Your task to perform on an android device: Open the map Image 0: 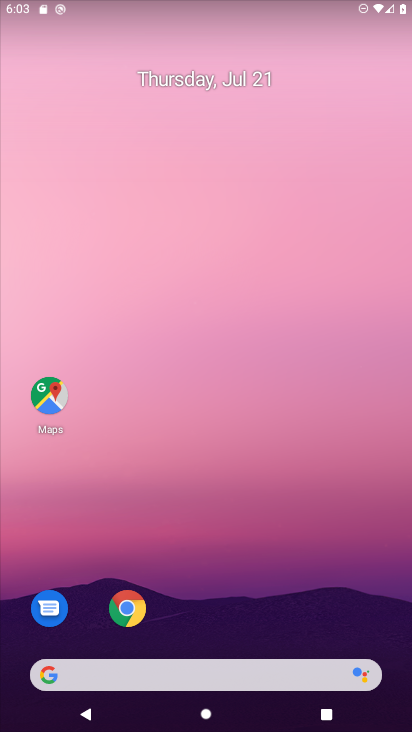
Step 0: click (47, 393)
Your task to perform on an android device: Open the map Image 1: 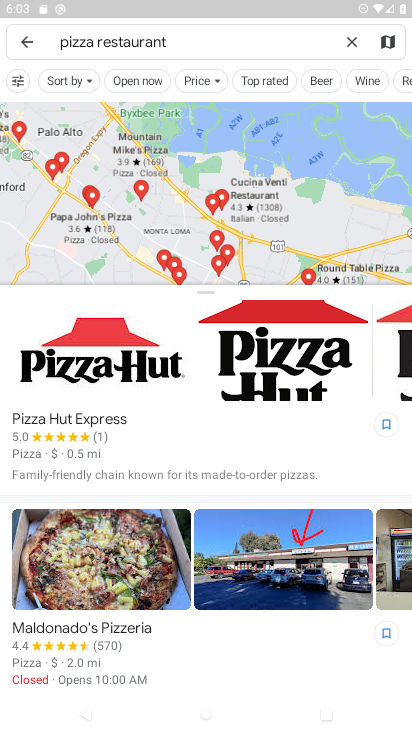
Step 1: click (353, 40)
Your task to perform on an android device: Open the map Image 2: 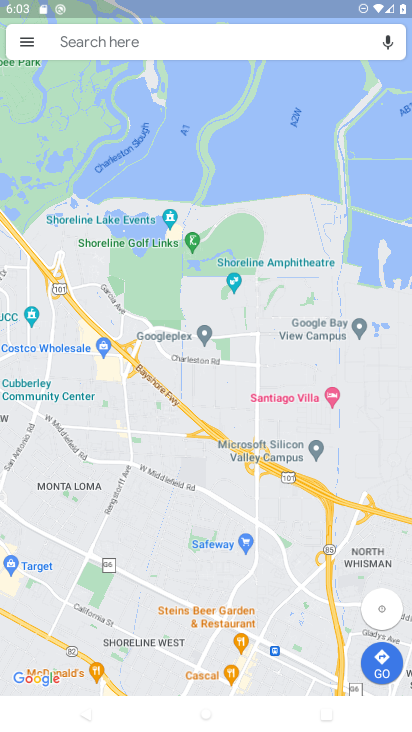
Step 2: task complete